Your task to perform on an android device: Open calendar and show me the fourth week of next month Image 0: 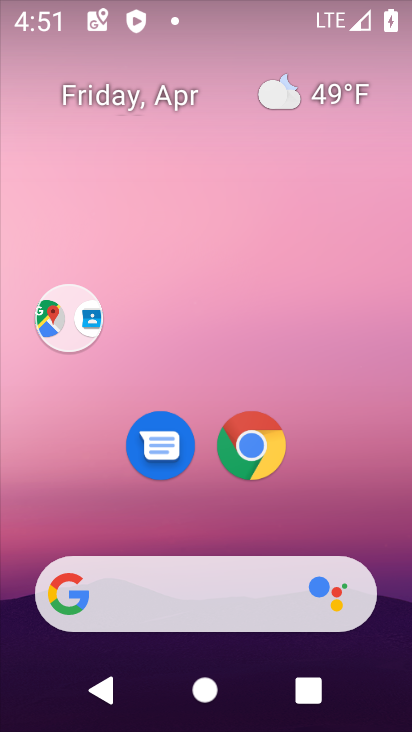
Step 0: drag from (353, 511) to (308, 101)
Your task to perform on an android device: Open calendar and show me the fourth week of next month Image 1: 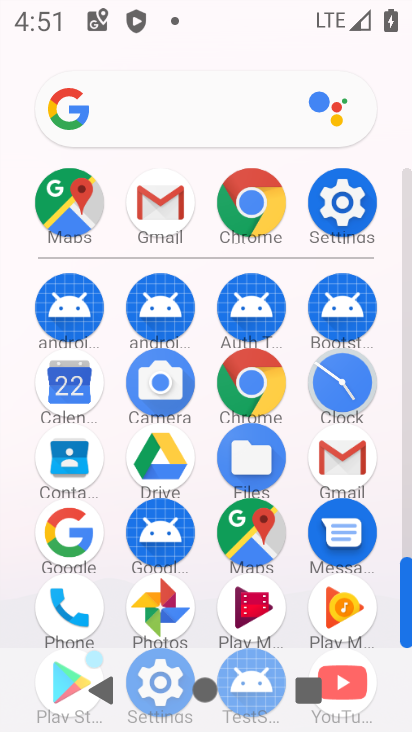
Step 1: click (60, 398)
Your task to perform on an android device: Open calendar and show me the fourth week of next month Image 2: 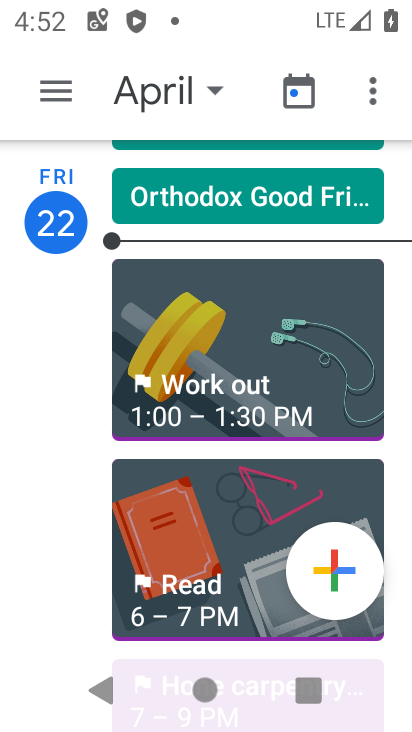
Step 2: click (155, 101)
Your task to perform on an android device: Open calendar and show me the fourth week of next month Image 3: 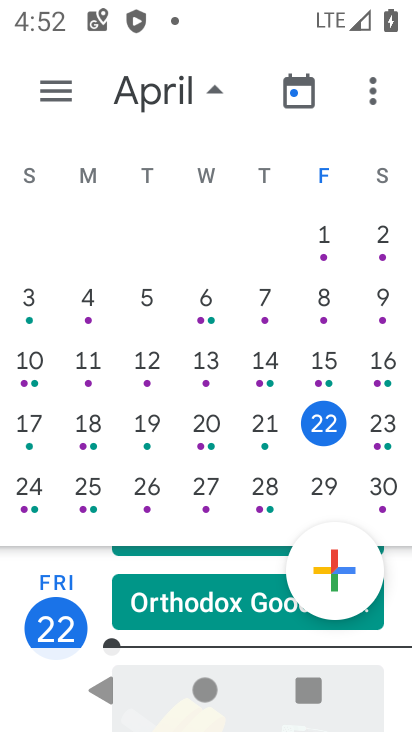
Step 3: drag from (348, 344) to (89, 338)
Your task to perform on an android device: Open calendar and show me the fourth week of next month Image 4: 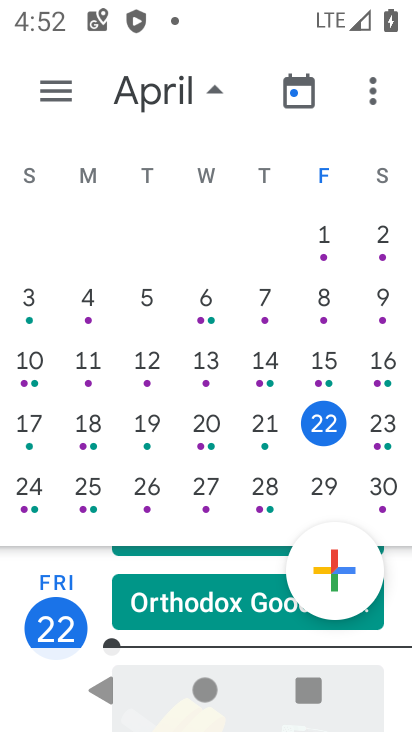
Step 4: drag from (372, 353) to (31, 331)
Your task to perform on an android device: Open calendar and show me the fourth week of next month Image 5: 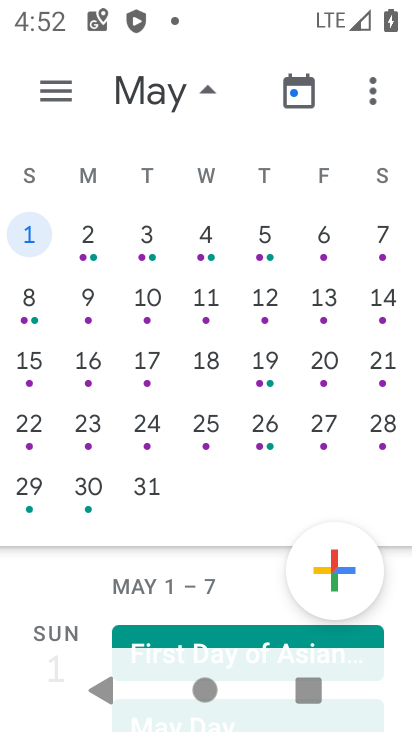
Step 5: click (213, 426)
Your task to perform on an android device: Open calendar and show me the fourth week of next month Image 6: 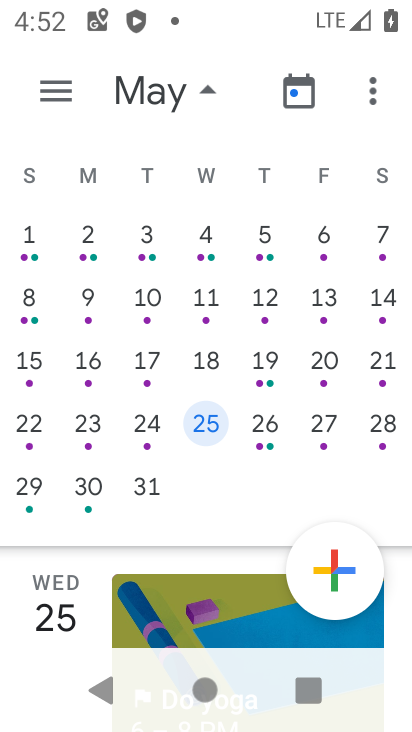
Step 6: task complete